Your task to perform on an android device: What's the weather going to be tomorrow? Image 0: 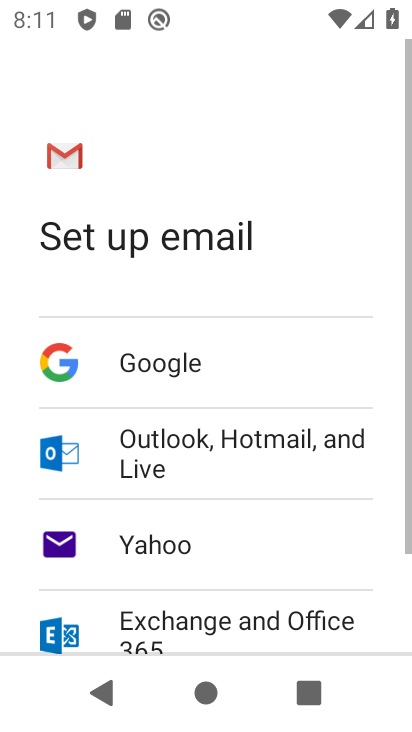
Step 0: press home button
Your task to perform on an android device: What's the weather going to be tomorrow? Image 1: 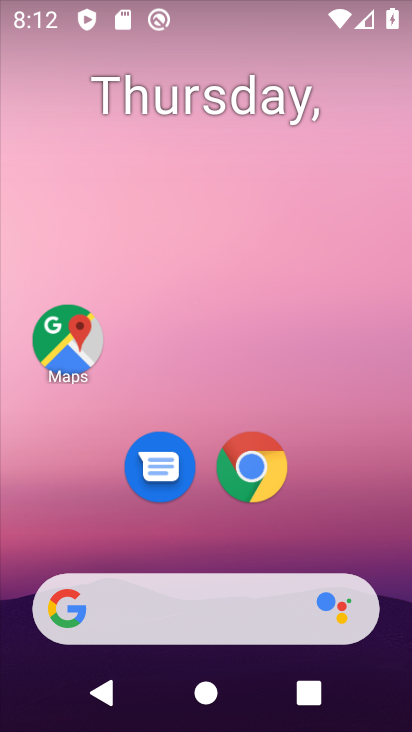
Step 1: click (172, 590)
Your task to perform on an android device: What's the weather going to be tomorrow? Image 2: 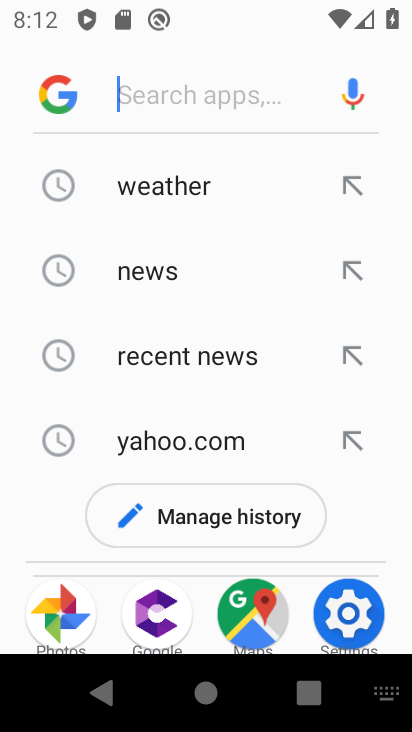
Step 2: click (158, 184)
Your task to perform on an android device: What's the weather going to be tomorrow? Image 3: 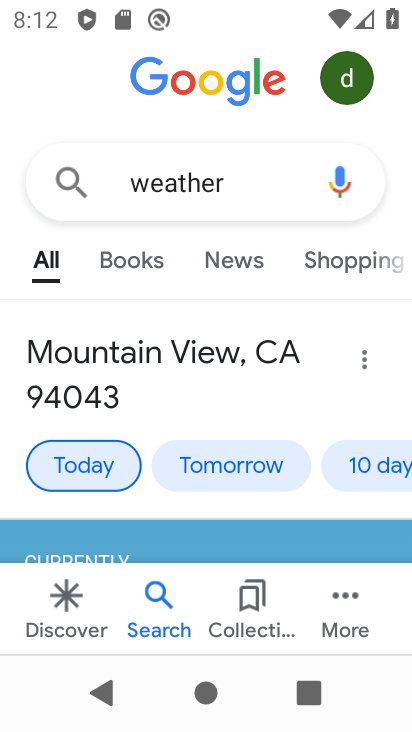
Step 3: click (208, 472)
Your task to perform on an android device: What's the weather going to be tomorrow? Image 4: 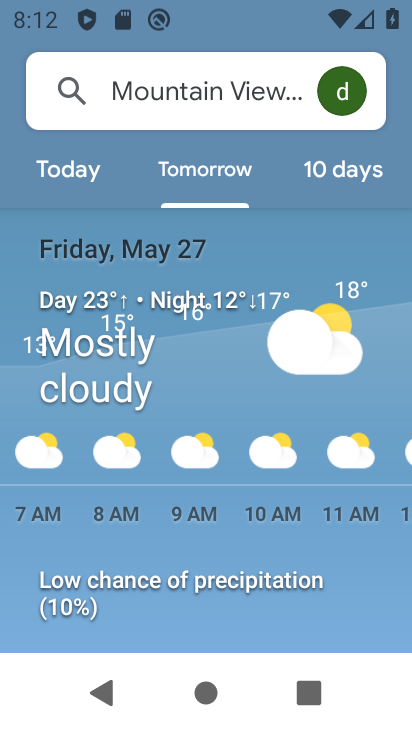
Step 4: task complete